Your task to perform on an android device: turn off wifi Image 0: 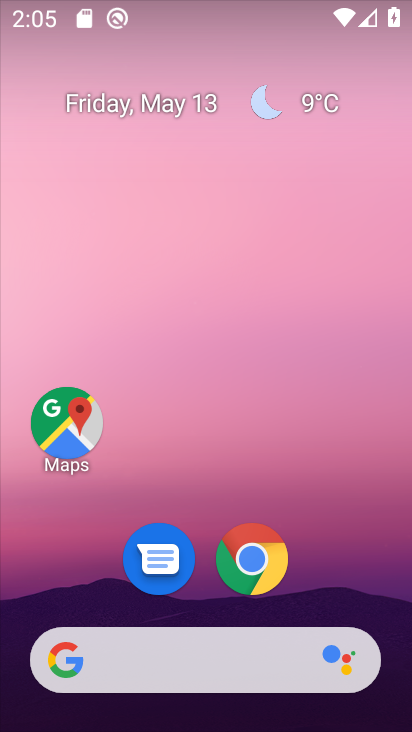
Step 0: drag from (394, 351) to (386, 274)
Your task to perform on an android device: turn off wifi Image 1: 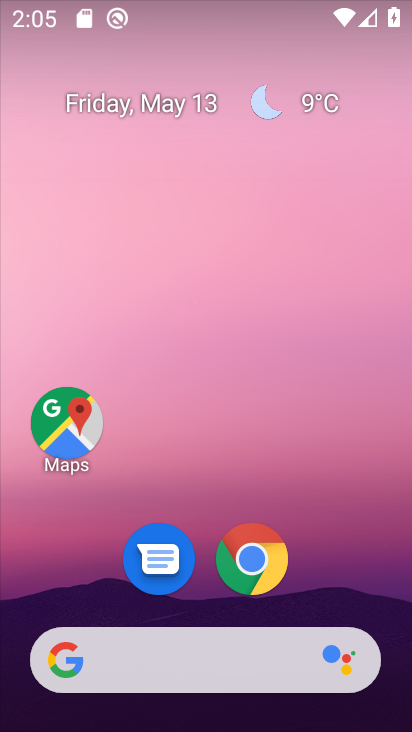
Step 1: drag from (395, 644) to (350, 194)
Your task to perform on an android device: turn off wifi Image 2: 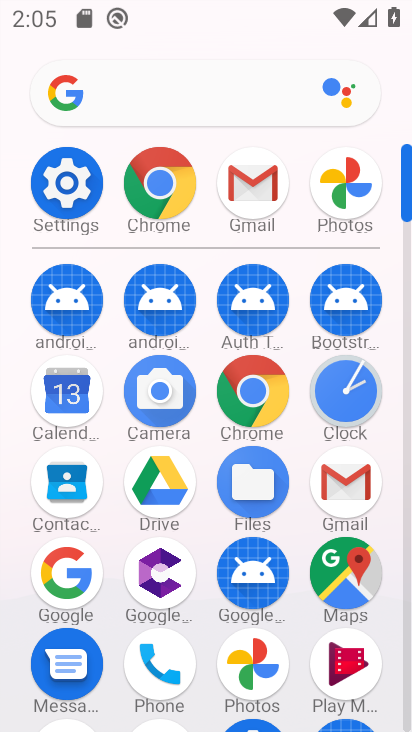
Step 2: click (51, 189)
Your task to perform on an android device: turn off wifi Image 3: 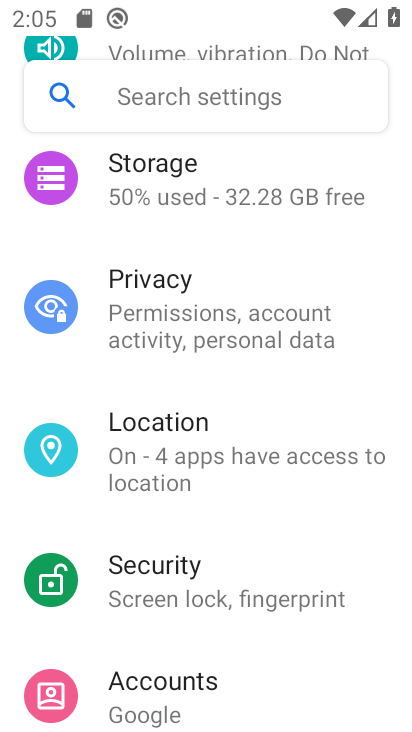
Step 3: drag from (370, 176) to (410, 423)
Your task to perform on an android device: turn off wifi Image 4: 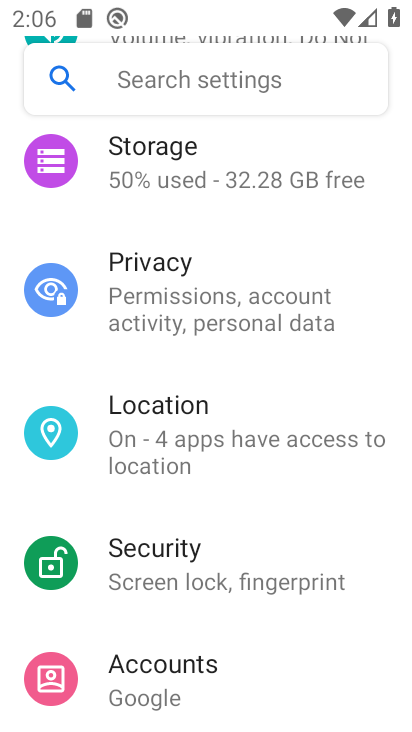
Step 4: drag from (384, 283) to (408, 583)
Your task to perform on an android device: turn off wifi Image 5: 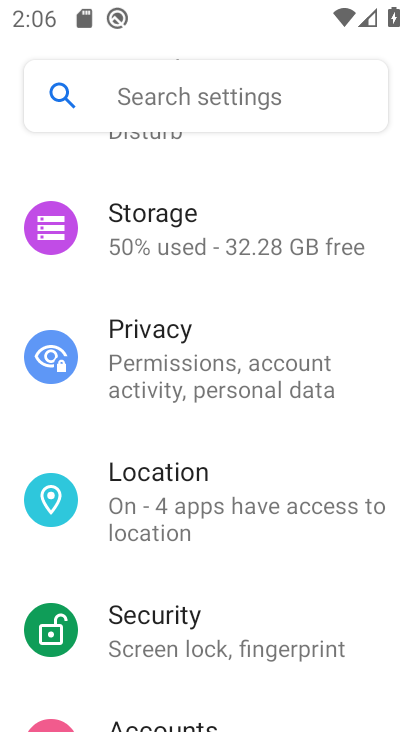
Step 5: drag from (383, 186) to (392, 588)
Your task to perform on an android device: turn off wifi Image 6: 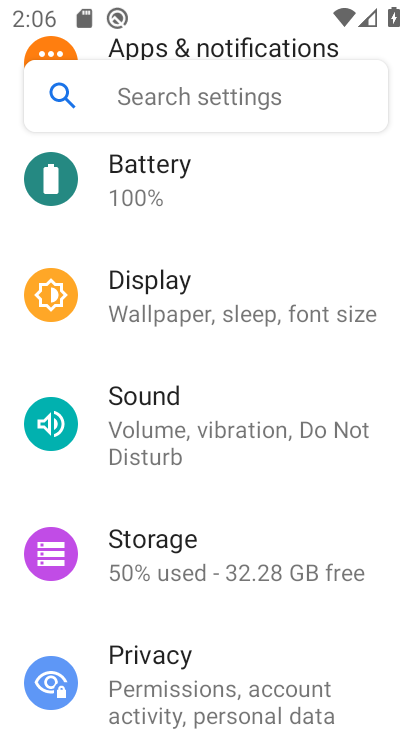
Step 6: drag from (376, 310) to (402, 463)
Your task to perform on an android device: turn off wifi Image 7: 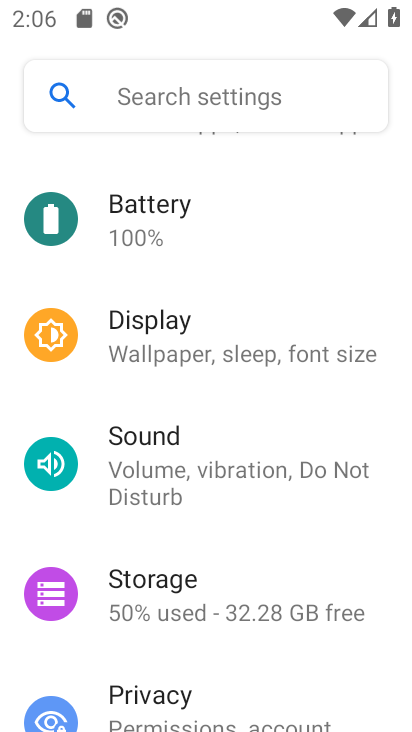
Step 7: drag from (361, 169) to (388, 426)
Your task to perform on an android device: turn off wifi Image 8: 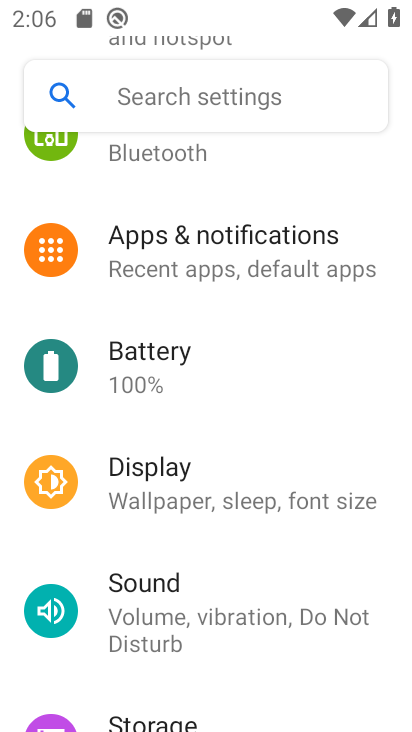
Step 8: drag from (397, 392) to (402, 452)
Your task to perform on an android device: turn off wifi Image 9: 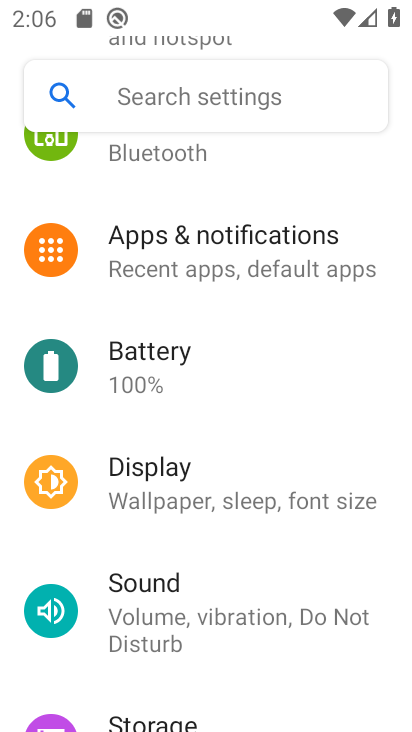
Step 9: drag from (365, 161) to (407, 550)
Your task to perform on an android device: turn off wifi Image 10: 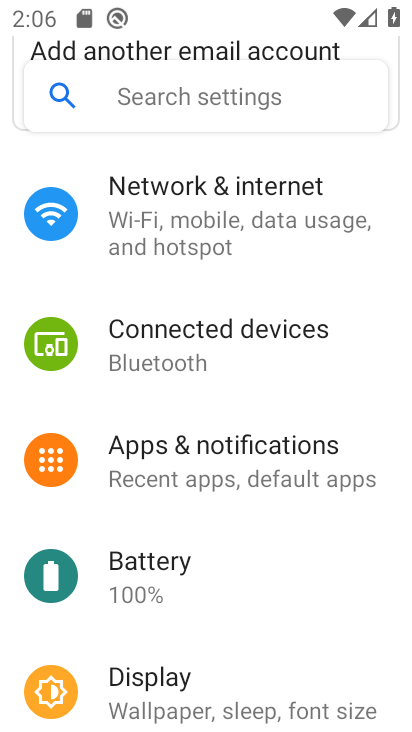
Step 10: click (202, 210)
Your task to perform on an android device: turn off wifi Image 11: 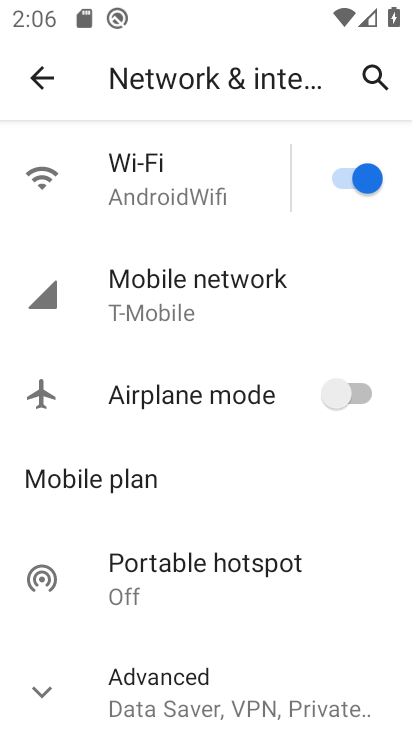
Step 11: click (341, 180)
Your task to perform on an android device: turn off wifi Image 12: 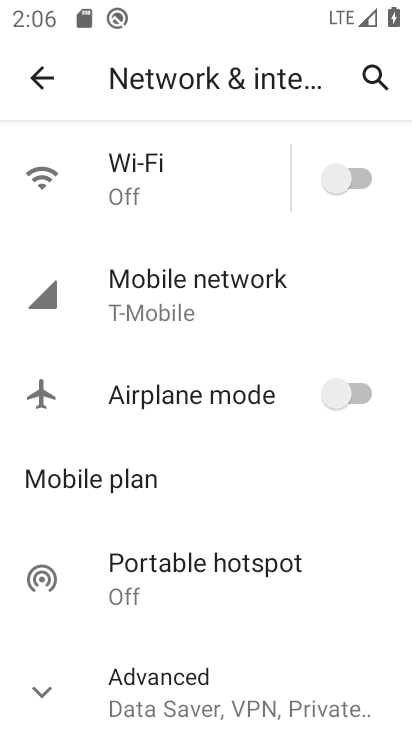
Step 12: task complete